Your task to perform on an android device: stop showing notifications on the lock screen Image 0: 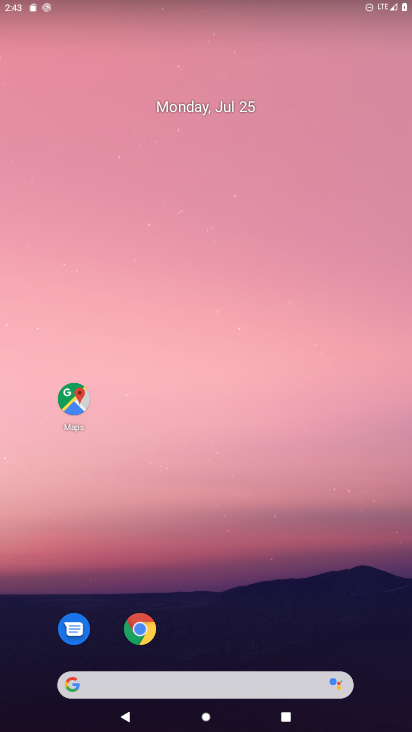
Step 0: click (295, 149)
Your task to perform on an android device: stop showing notifications on the lock screen Image 1: 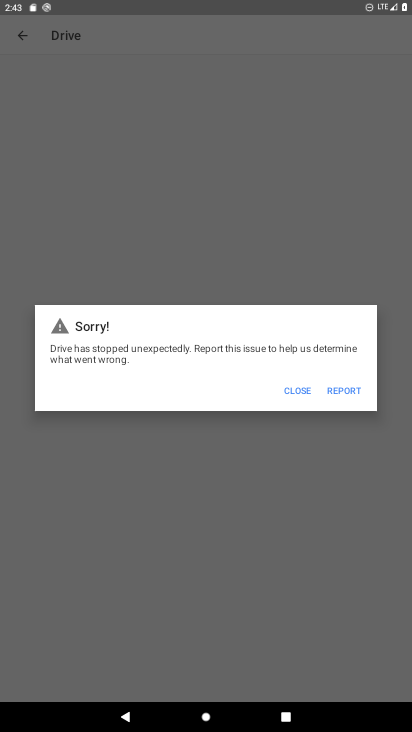
Step 1: press home button
Your task to perform on an android device: stop showing notifications on the lock screen Image 2: 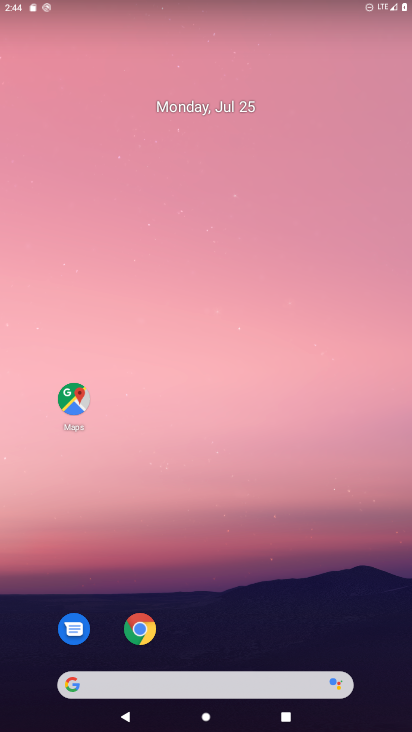
Step 2: drag from (214, 624) to (218, 27)
Your task to perform on an android device: stop showing notifications on the lock screen Image 3: 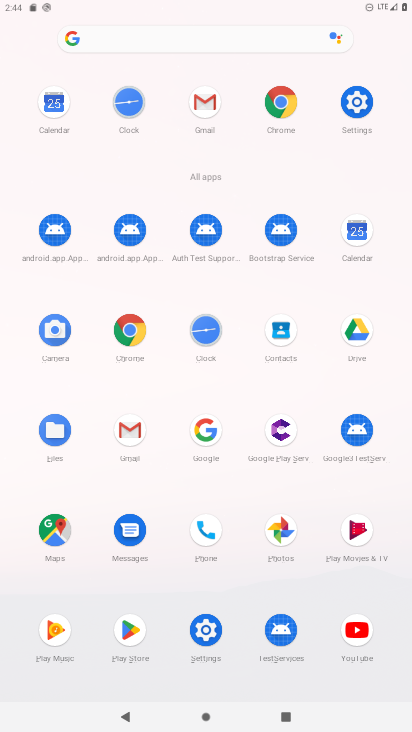
Step 3: click (205, 630)
Your task to perform on an android device: stop showing notifications on the lock screen Image 4: 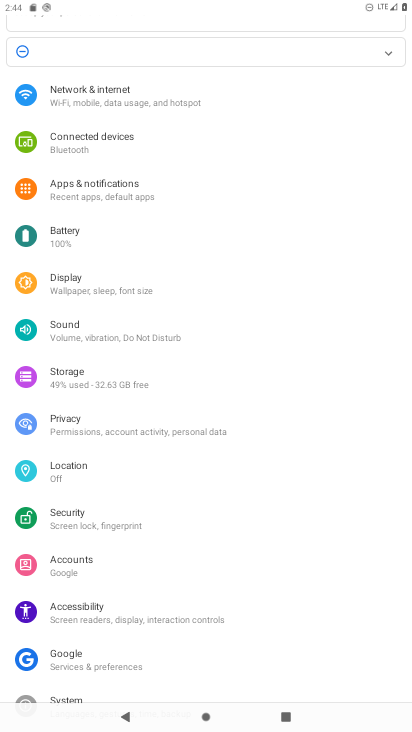
Step 4: click (76, 182)
Your task to perform on an android device: stop showing notifications on the lock screen Image 5: 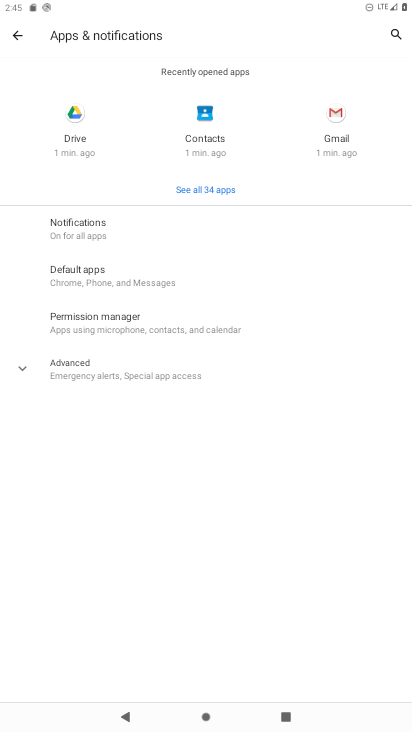
Step 5: click (104, 216)
Your task to perform on an android device: stop showing notifications on the lock screen Image 6: 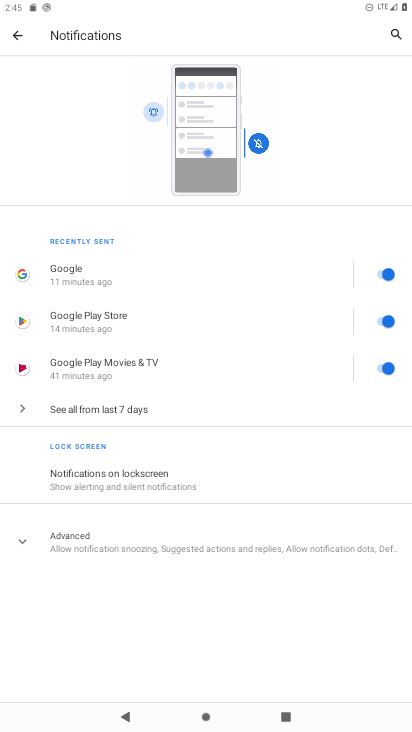
Step 6: click (131, 471)
Your task to perform on an android device: stop showing notifications on the lock screen Image 7: 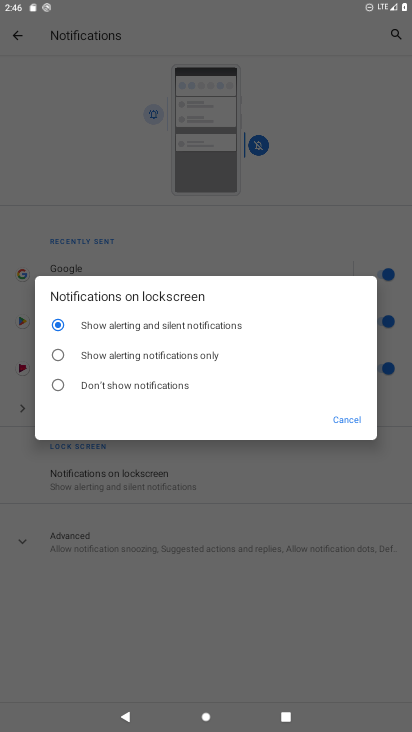
Step 7: click (138, 375)
Your task to perform on an android device: stop showing notifications on the lock screen Image 8: 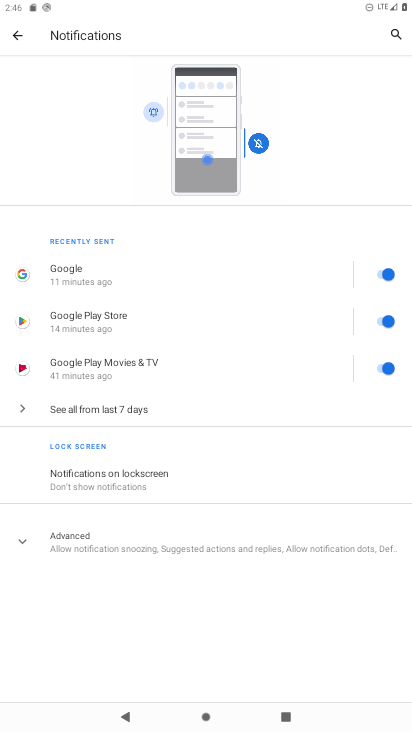
Step 8: task complete